Your task to perform on an android device: see sites visited before in the chrome app Image 0: 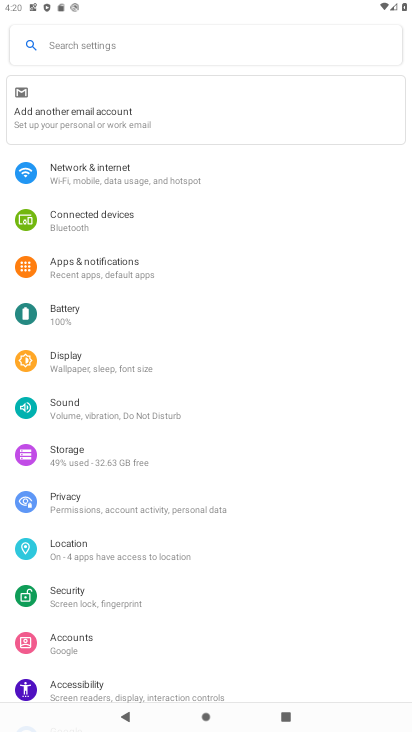
Step 0: press home button
Your task to perform on an android device: see sites visited before in the chrome app Image 1: 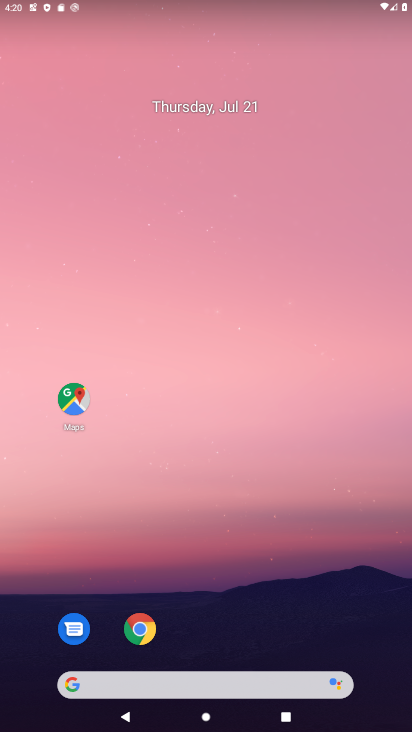
Step 1: drag from (329, 460) to (270, 101)
Your task to perform on an android device: see sites visited before in the chrome app Image 2: 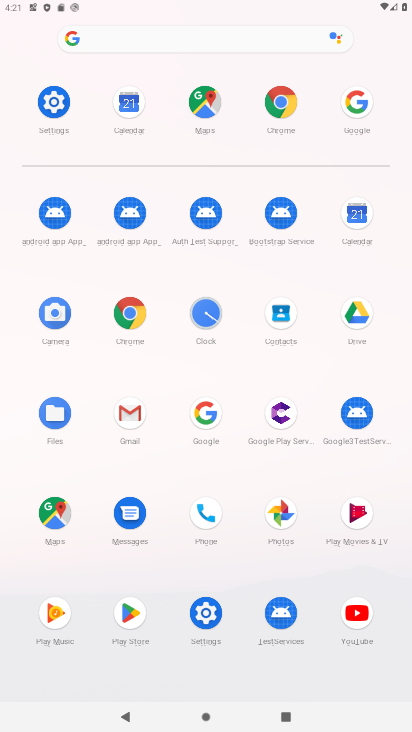
Step 2: click (287, 103)
Your task to perform on an android device: see sites visited before in the chrome app Image 3: 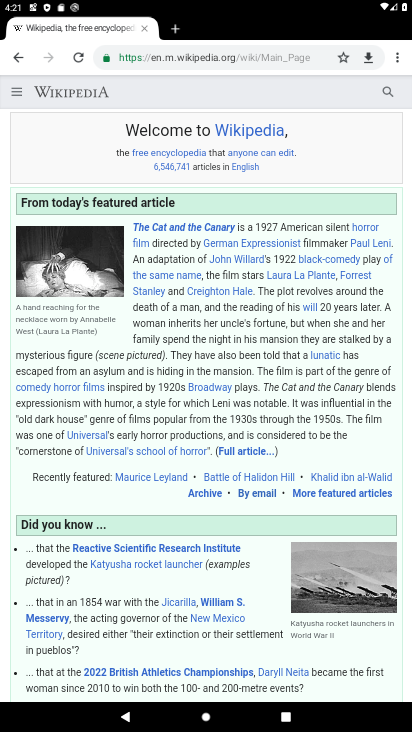
Step 3: drag from (396, 61) to (298, 143)
Your task to perform on an android device: see sites visited before in the chrome app Image 4: 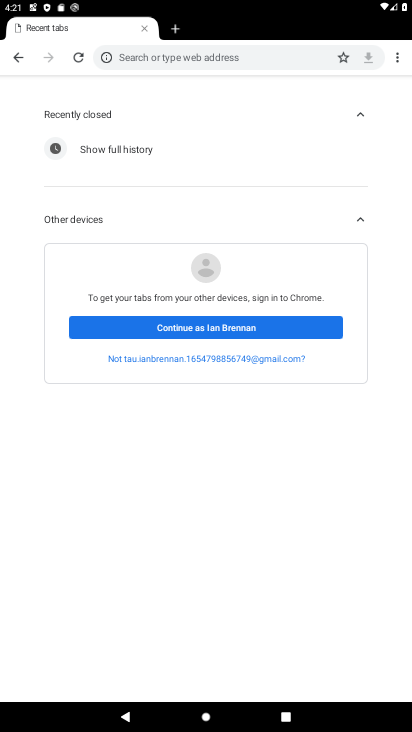
Step 4: click (200, 333)
Your task to perform on an android device: see sites visited before in the chrome app Image 5: 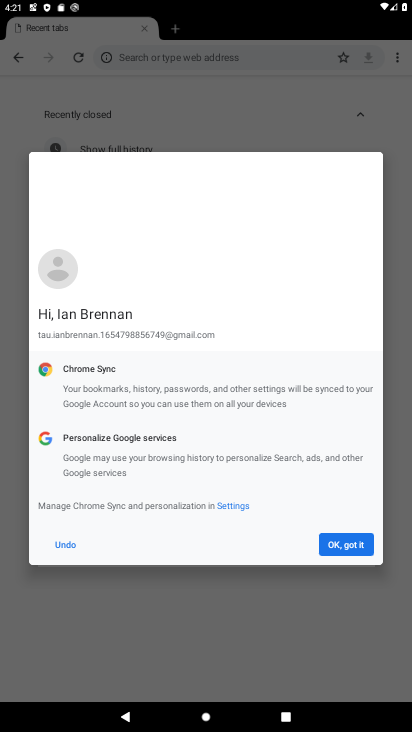
Step 5: click (325, 549)
Your task to perform on an android device: see sites visited before in the chrome app Image 6: 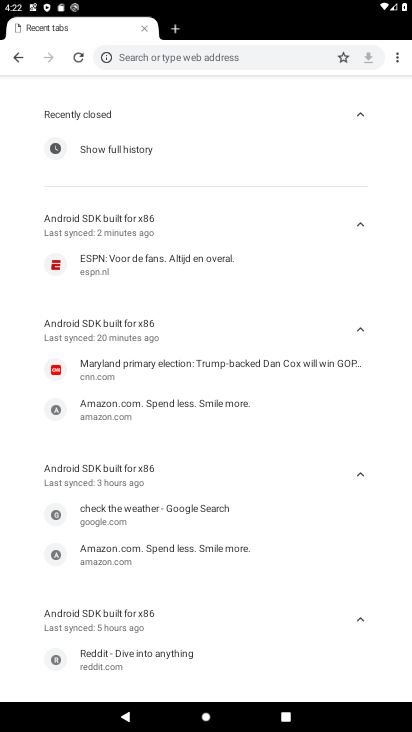
Step 6: task complete